Your task to perform on an android device: set an alarm Image 0: 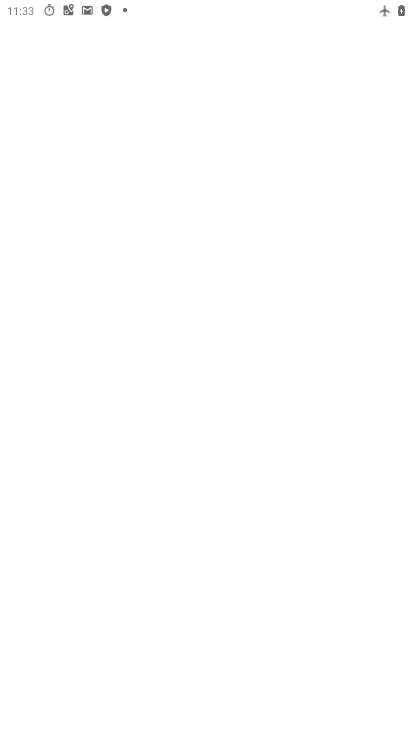
Step 0: press home button
Your task to perform on an android device: set an alarm Image 1: 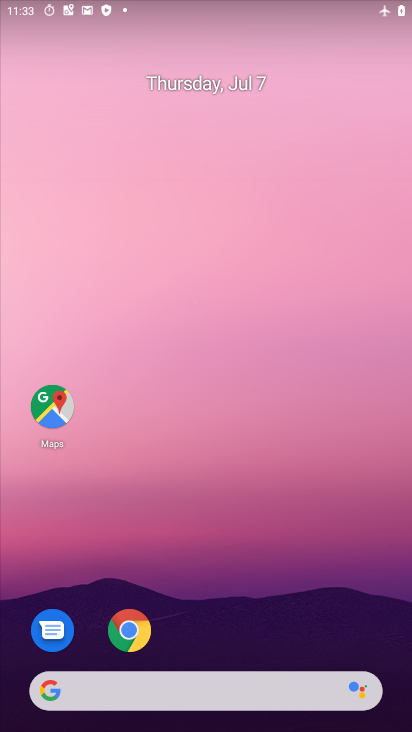
Step 1: drag from (247, 630) to (217, 214)
Your task to perform on an android device: set an alarm Image 2: 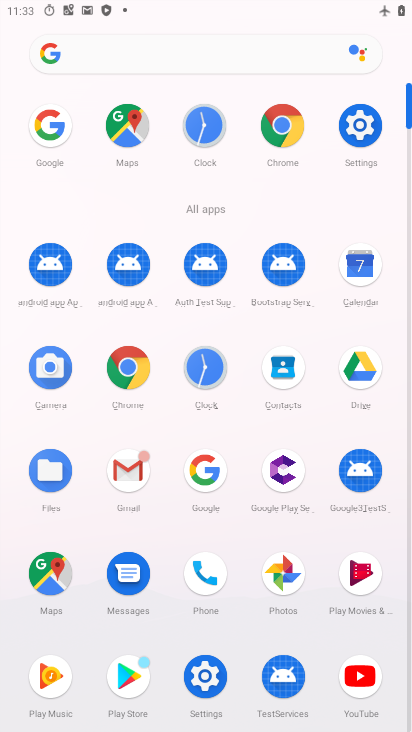
Step 2: click (201, 130)
Your task to perform on an android device: set an alarm Image 3: 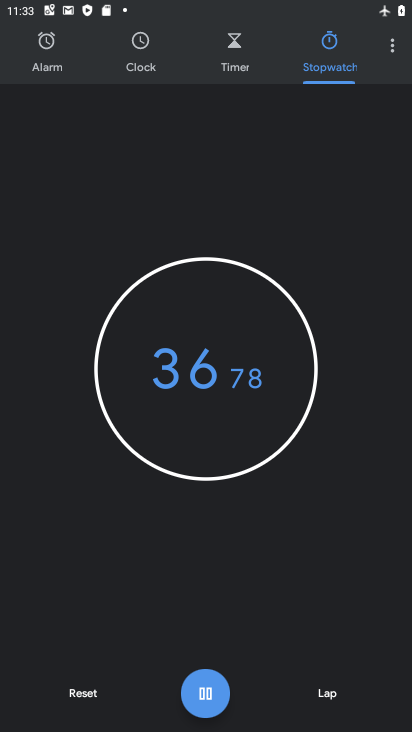
Step 3: click (60, 65)
Your task to perform on an android device: set an alarm Image 4: 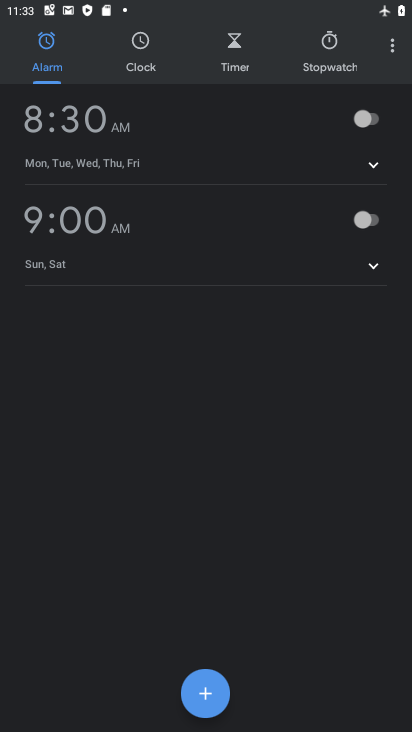
Step 4: click (375, 115)
Your task to perform on an android device: set an alarm Image 5: 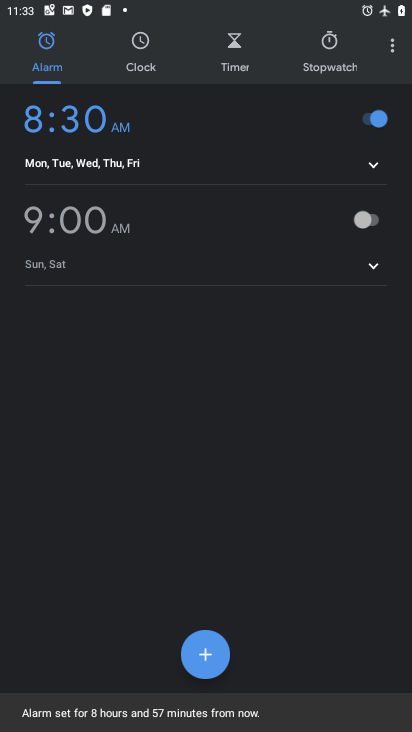
Step 5: task complete